Your task to perform on an android device: Do I have any events this weekend? Image 0: 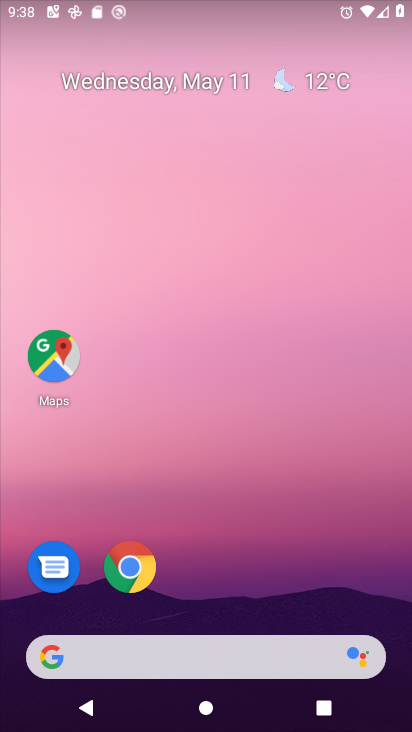
Step 0: click (165, 86)
Your task to perform on an android device: Do I have any events this weekend? Image 1: 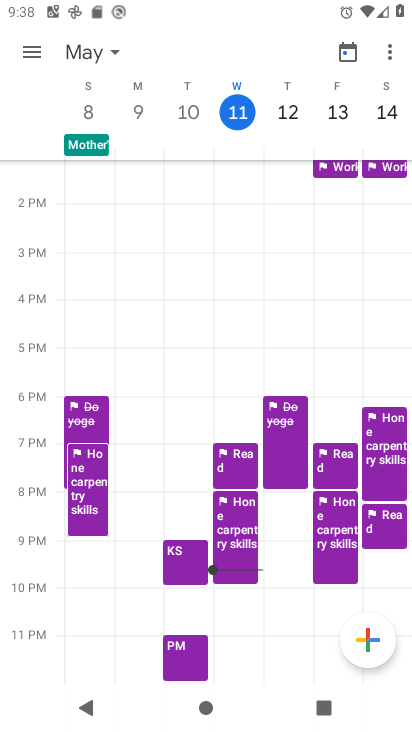
Step 1: task complete